Your task to perform on an android device: manage bookmarks in the chrome app Image 0: 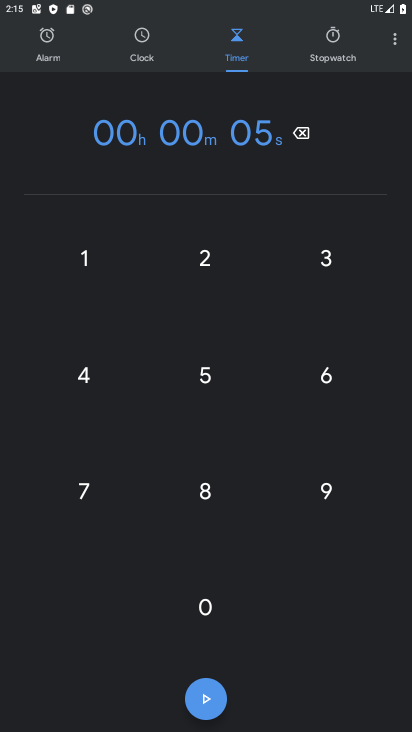
Step 0: press home button
Your task to perform on an android device: manage bookmarks in the chrome app Image 1: 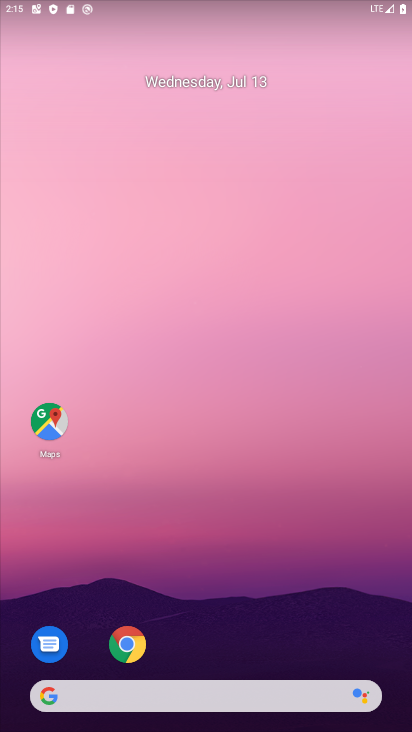
Step 1: drag from (284, 618) to (214, 92)
Your task to perform on an android device: manage bookmarks in the chrome app Image 2: 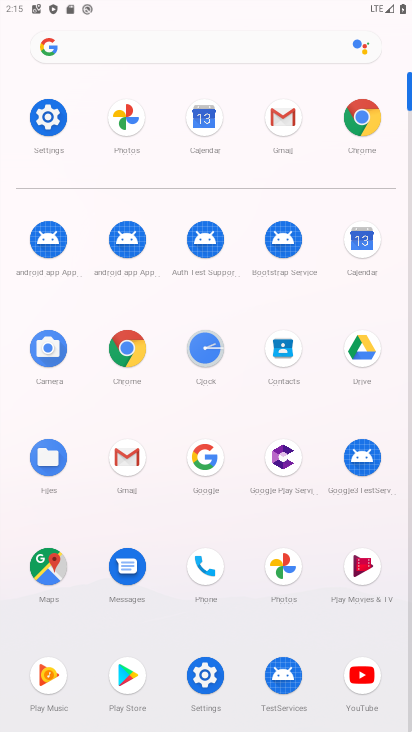
Step 2: click (362, 119)
Your task to perform on an android device: manage bookmarks in the chrome app Image 3: 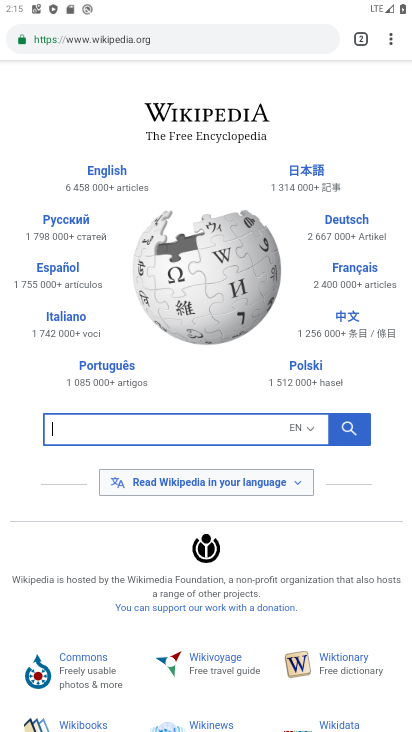
Step 3: drag from (388, 39) to (242, 150)
Your task to perform on an android device: manage bookmarks in the chrome app Image 4: 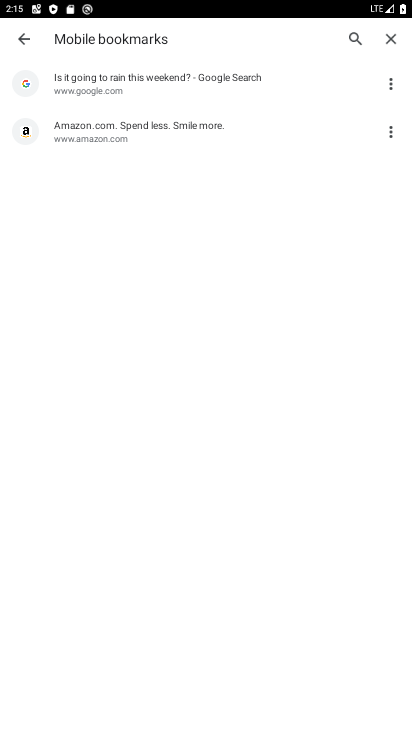
Step 4: click (395, 130)
Your task to perform on an android device: manage bookmarks in the chrome app Image 5: 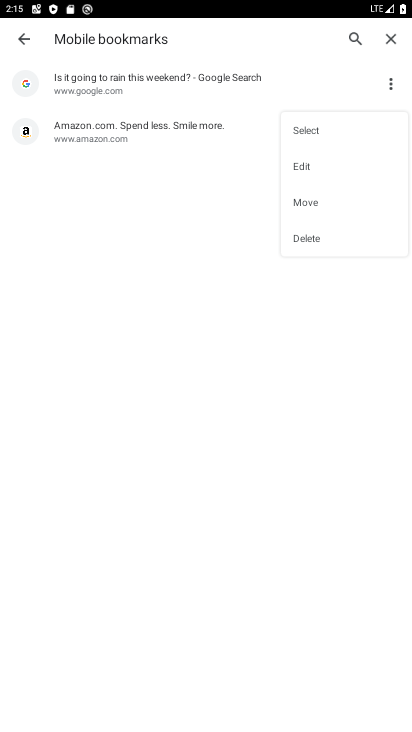
Step 5: click (315, 238)
Your task to perform on an android device: manage bookmarks in the chrome app Image 6: 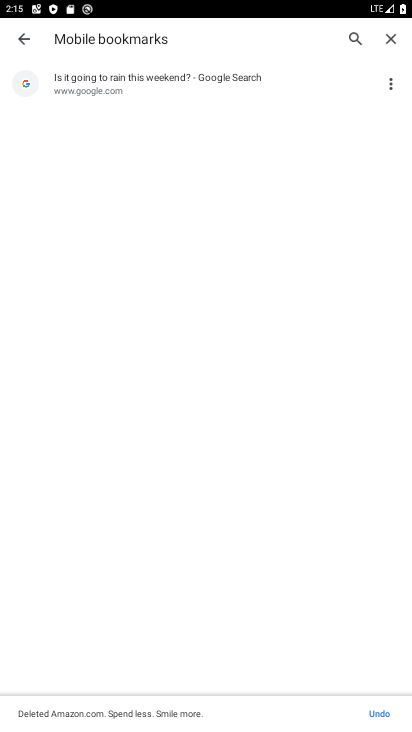
Step 6: task complete